Your task to perform on an android device: turn pop-ups off in chrome Image 0: 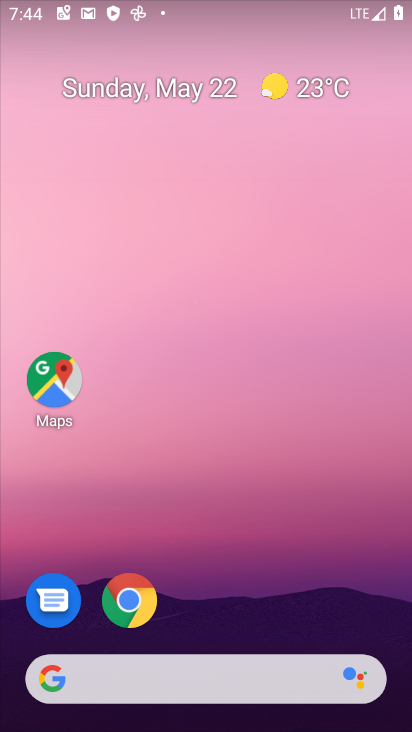
Step 0: drag from (343, 611) to (220, 21)
Your task to perform on an android device: turn pop-ups off in chrome Image 1: 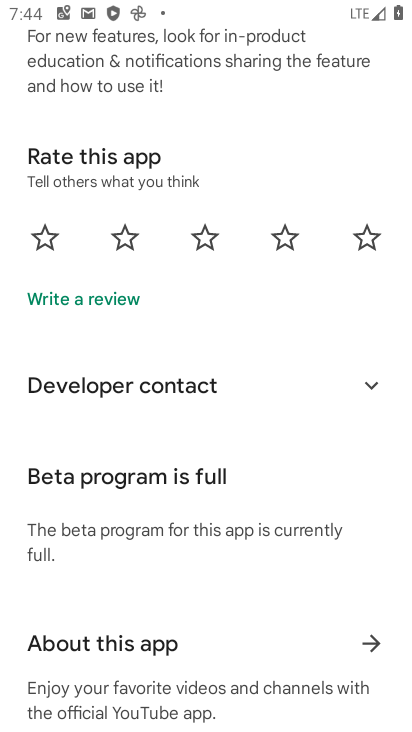
Step 1: press home button
Your task to perform on an android device: turn pop-ups off in chrome Image 2: 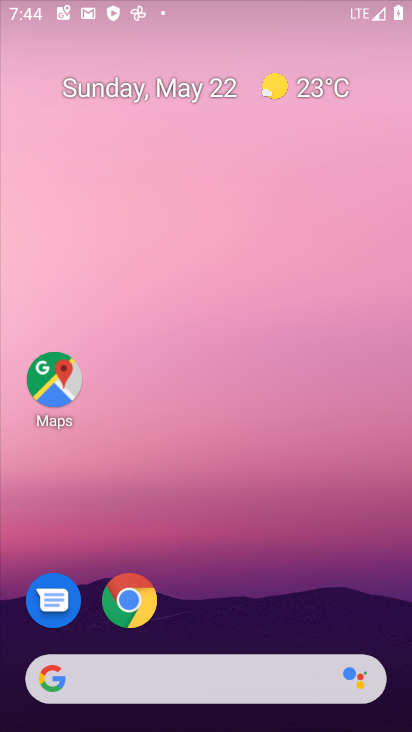
Step 2: drag from (364, 610) to (265, 6)
Your task to perform on an android device: turn pop-ups off in chrome Image 3: 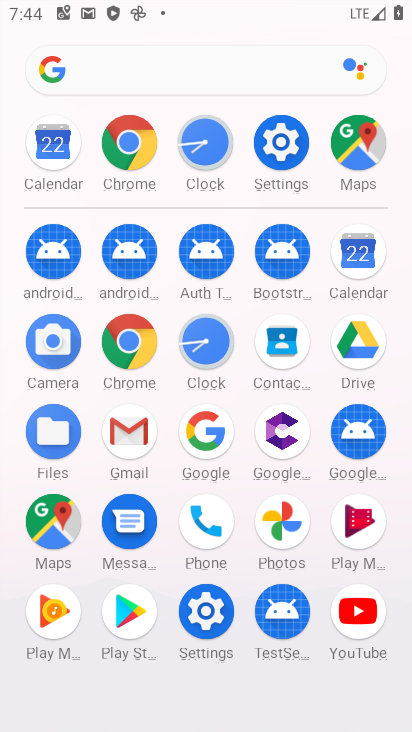
Step 3: click (124, 140)
Your task to perform on an android device: turn pop-ups off in chrome Image 4: 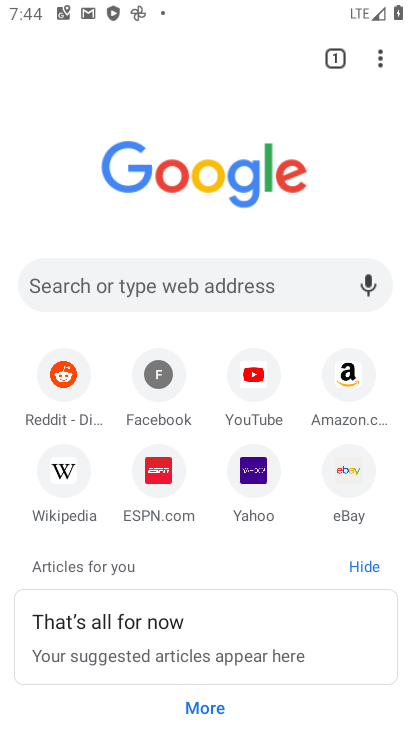
Step 4: click (380, 50)
Your task to perform on an android device: turn pop-ups off in chrome Image 5: 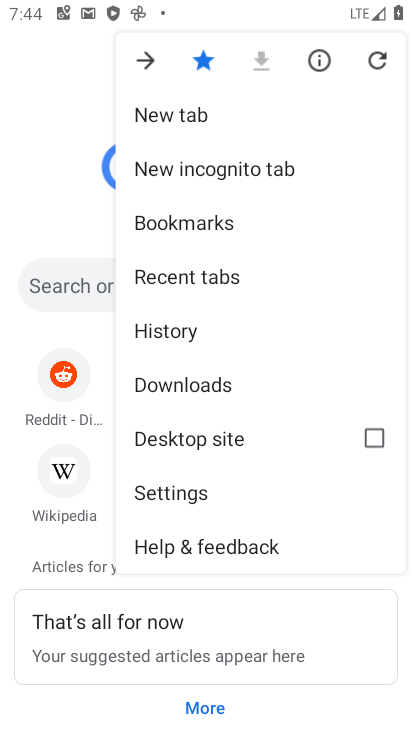
Step 5: click (201, 496)
Your task to perform on an android device: turn pop-ups off in chrome Image 6: 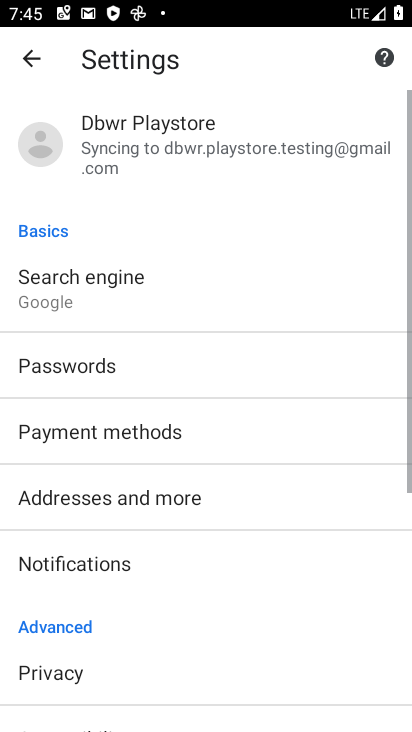
Step 6: drag from (208, 316) to (183, 135)
Your task to perform on an android device: turn pop-ups off in chrome Image 7: 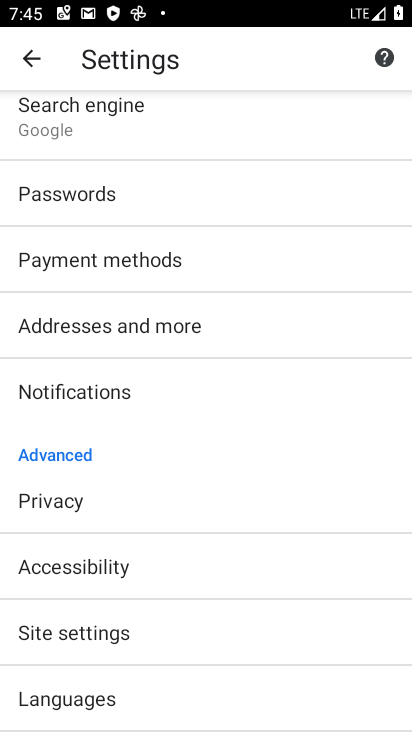
Step 7: click (116, 598)
Your task to perform on an android device: turn pop-ups off in chrome Image 8: 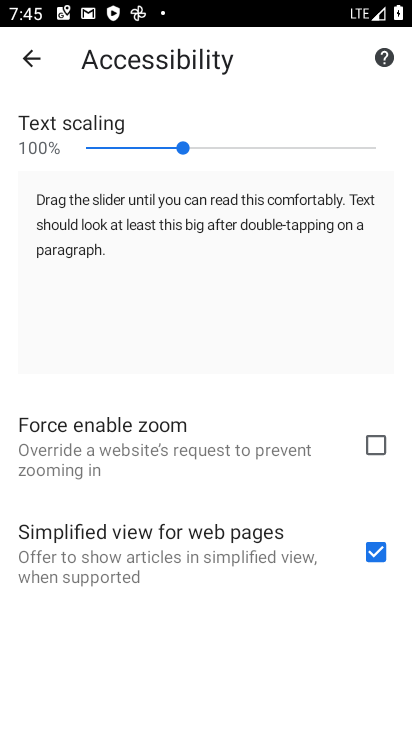
Step 8: press back button
Your task to perform on an android device: turn pop-ups off in chrome Image 9: 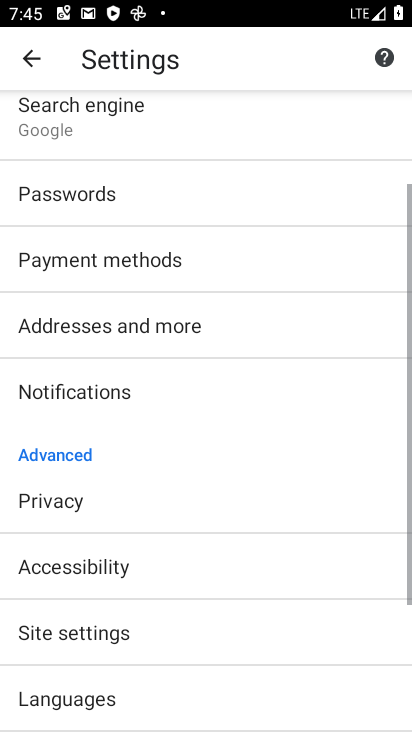
Step 9: click (183, 631)
Your task to perform on an android device: turn pop-ups off in chrome Image 10: 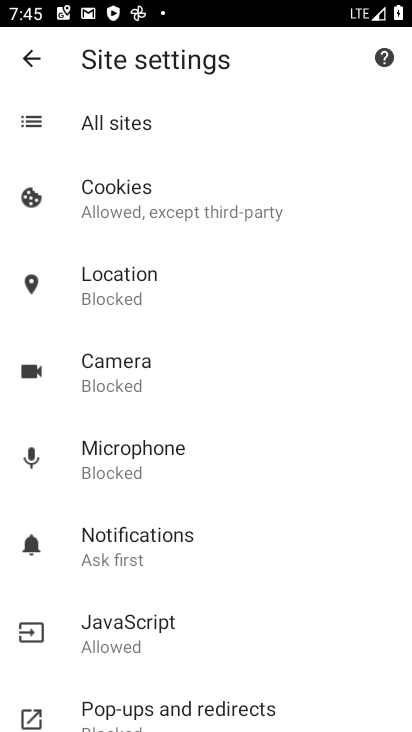
Step 10: click (223, 706)
Your task to perform on an android device: turn pop-ups off in chrome Image 11: 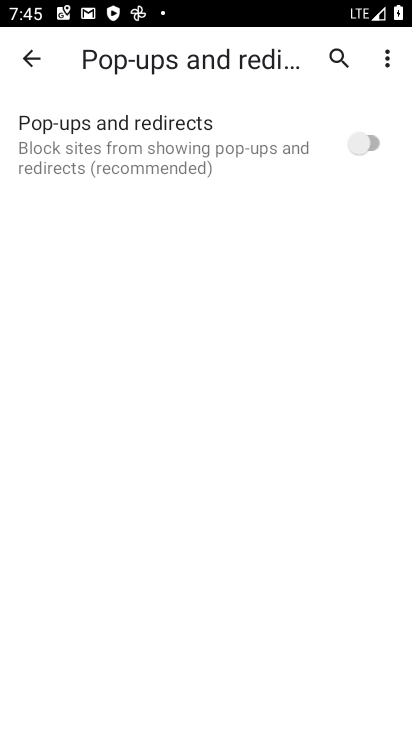
Step 11: task complete